Your task to perform on an android device: open app "The Home Depot" (install if not already installed), go to login, and select forgot password Image 0: 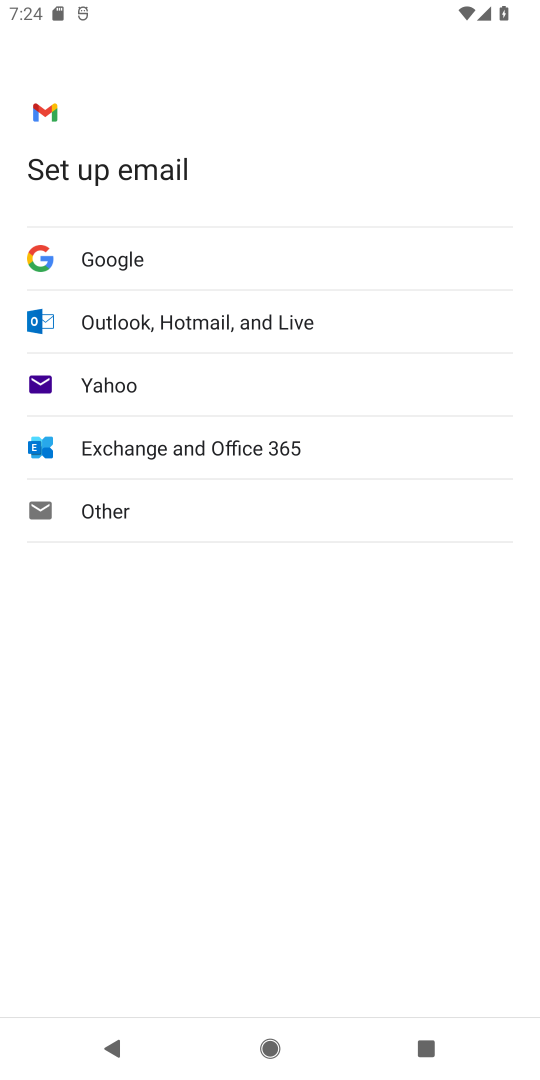
Step 0: press home button
Your task to perform on an android device: open app "The Home Depot" (install if not already installed), go to login, and select forgot password Image 1: 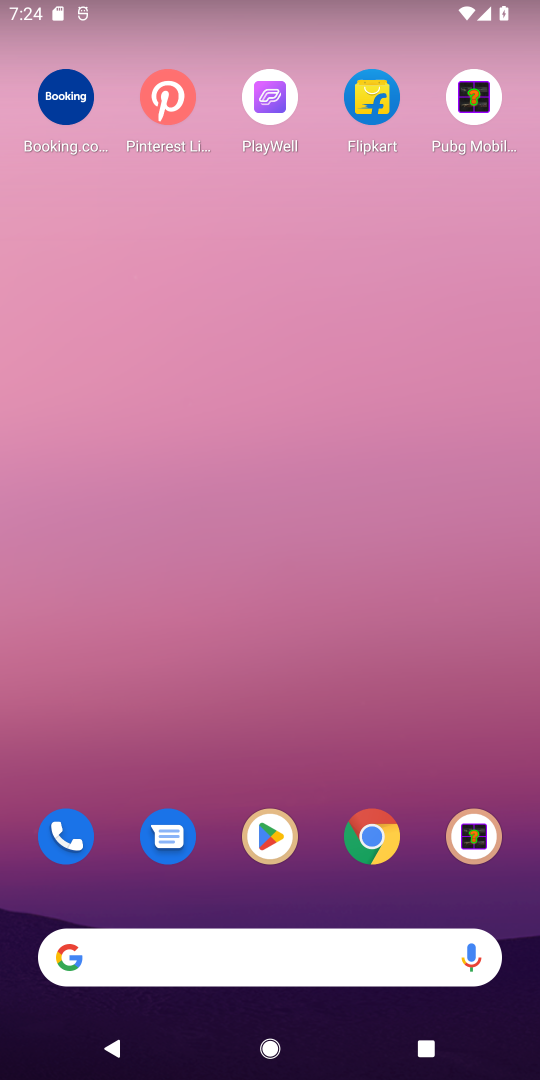
Step 1: press home button
Your task to perform on an android device: open app "The Home Depot" (install if not already installed), go to login, and select forgot password Image 2: 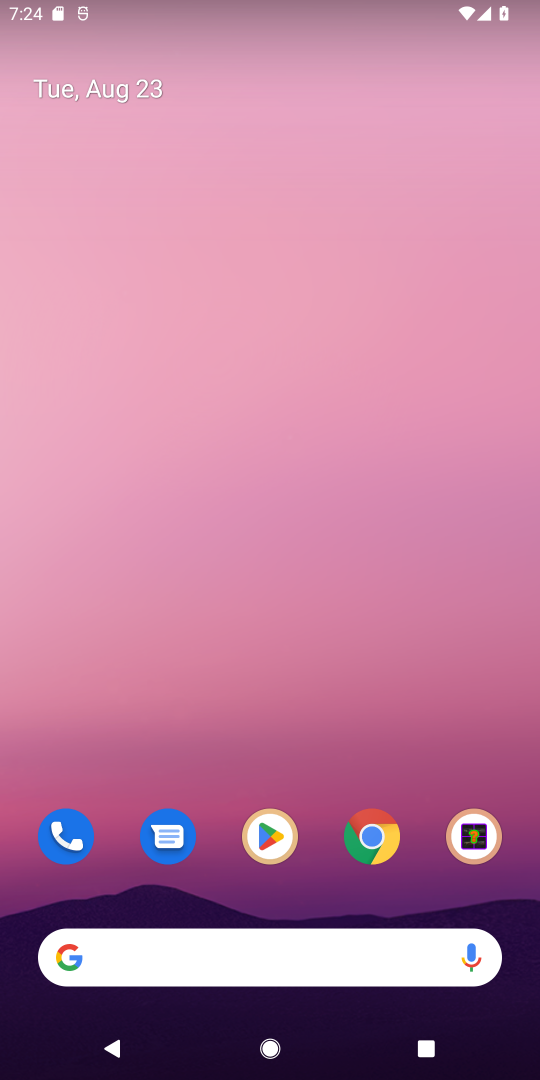
Step 2: click (273, 817)
Your task to perform on an android device: open app "The Home Depot" (install if not already installed), go to login, and select forgot password Image 3: 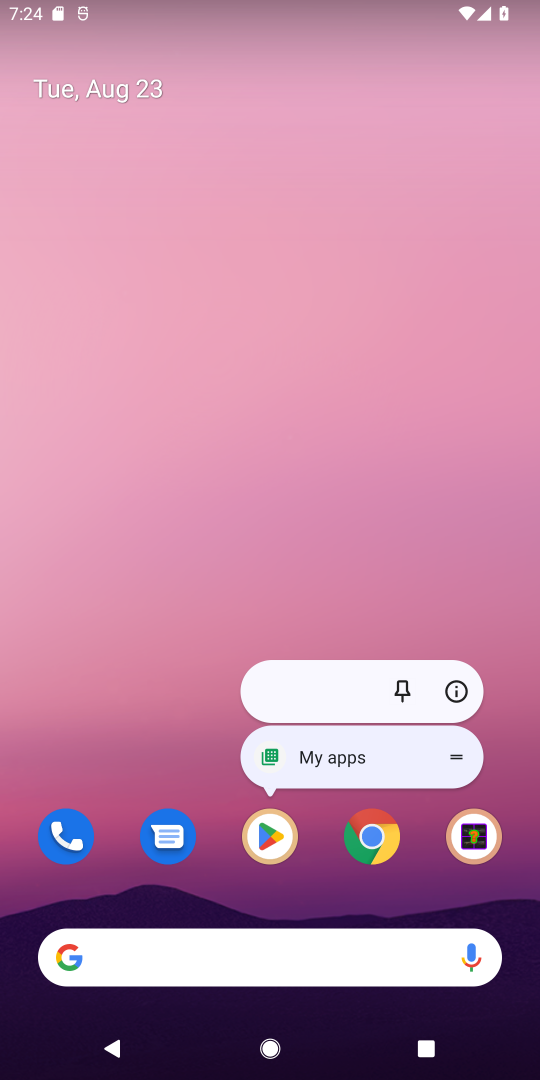
Step 3: click (269, 833)
Your task to perform on an android device: open app "The Home Depot" (install if not already installed), go to login, and select forgot password Image 4: 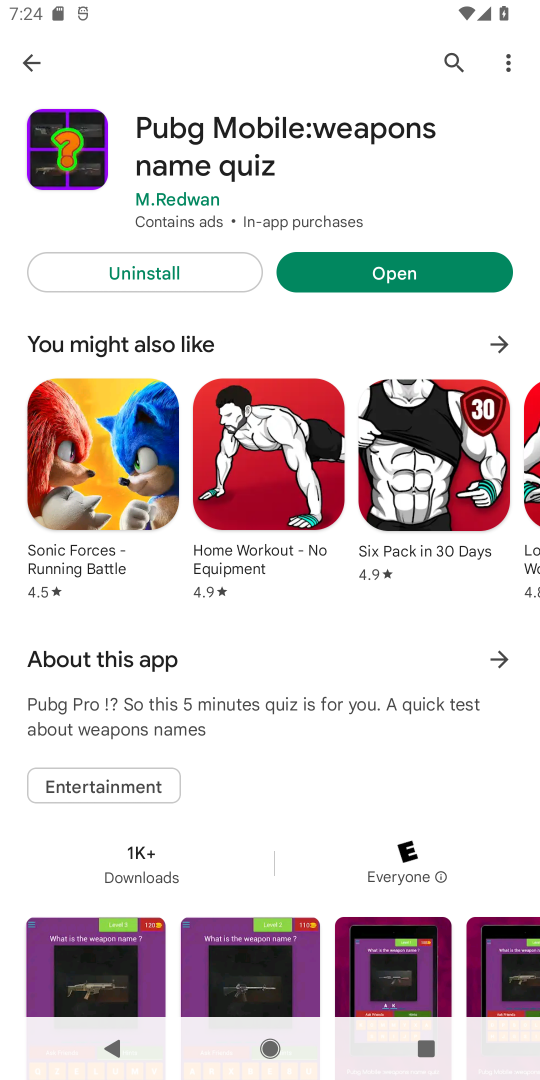
Step 4: click (452, 55)
Your task to perform on an android device: open app "The Home Depot" (install if not already installed), go to login, and select forgot password Image 5: 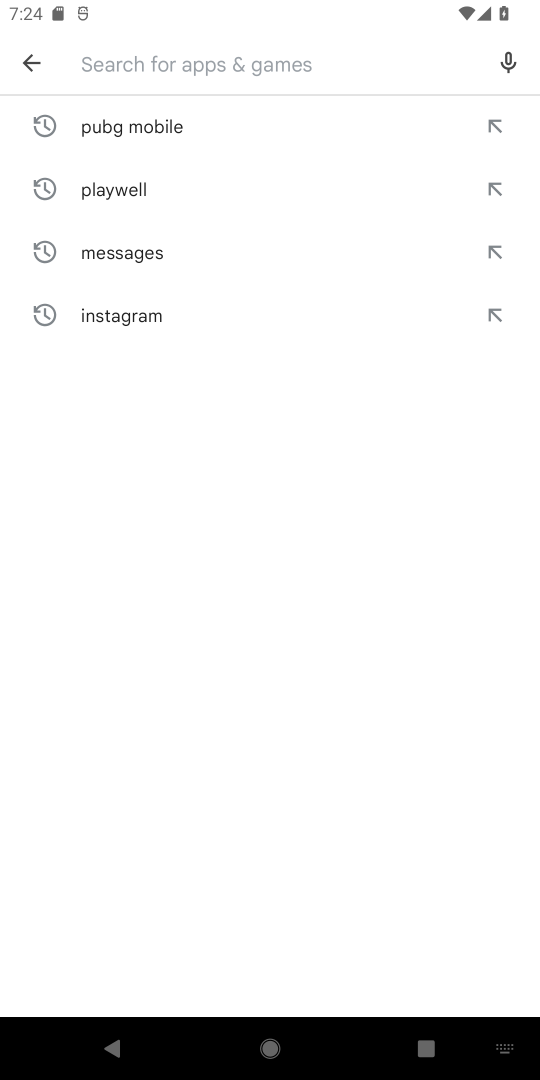
Step 5: type "The Home Depot"
Your task to perform on an android device: open app "The Home Depot" (install if not already installed), go to login, and select forgot password Image 6: 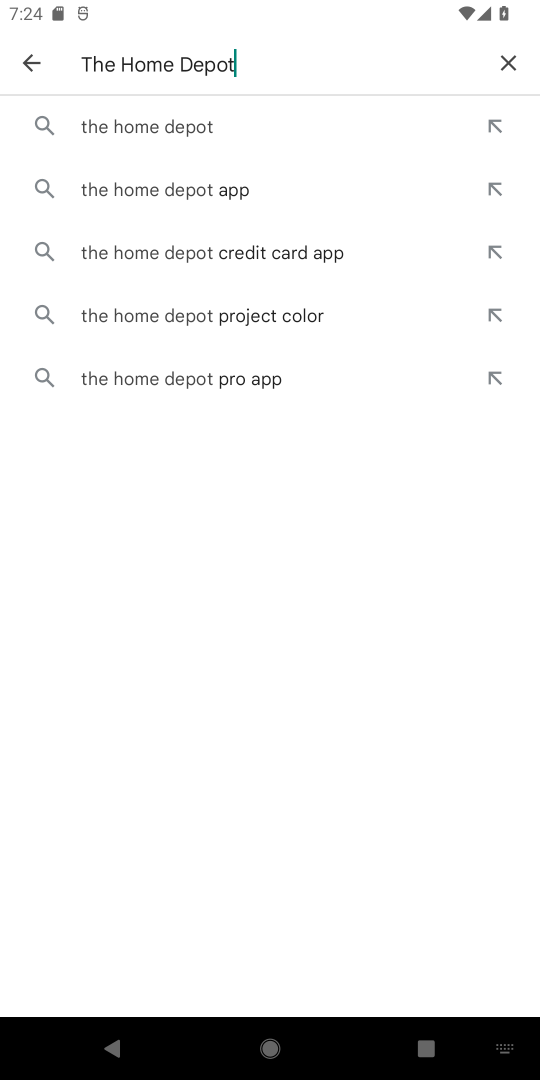
Step 6: click (195, 118)
Your task to perform on an android device: open app "The Home Depot" (install if not already installed), go to login, and select forgot password Image 7: 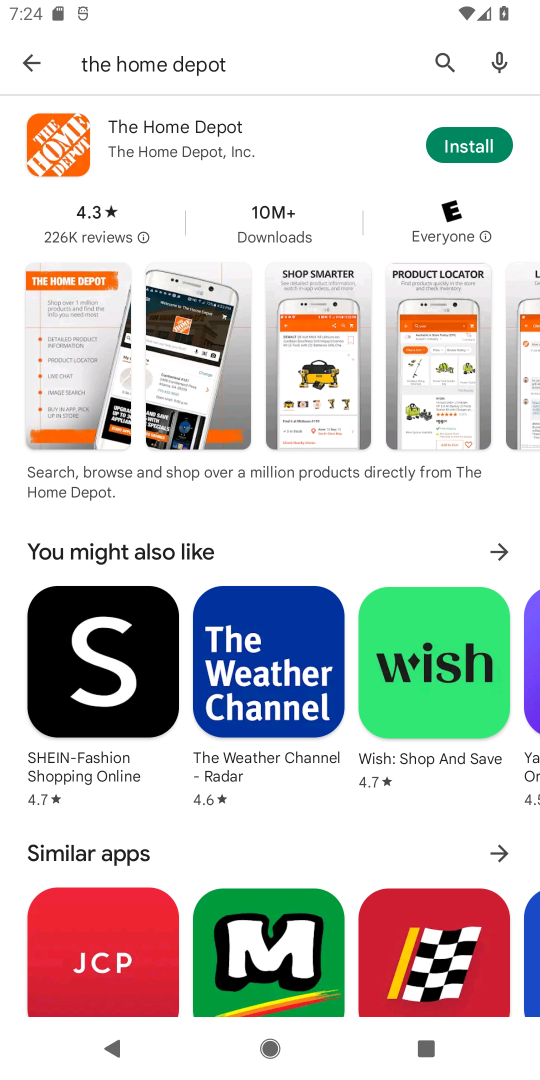
Step 7: click (477, 141)
Your task to perform on an android device: open app "The Home Depot" (install if not already installed), go to login, and select forgot password Image 8: 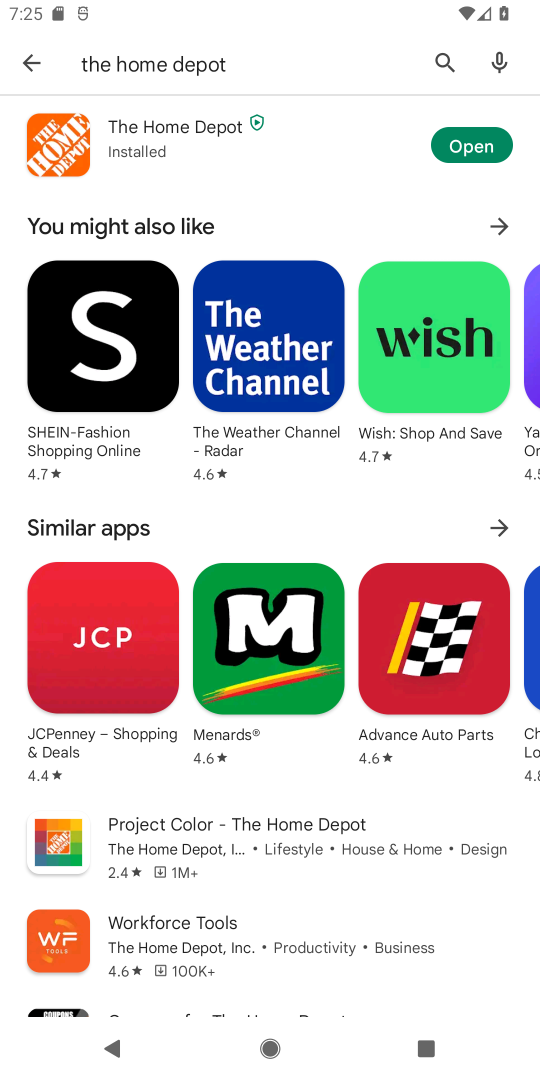
Step 8: click (491, 153)
Your task to perform on an android device: open app "The Home Depot" (install if not already installed), go to login, and select forgot password Image 9: 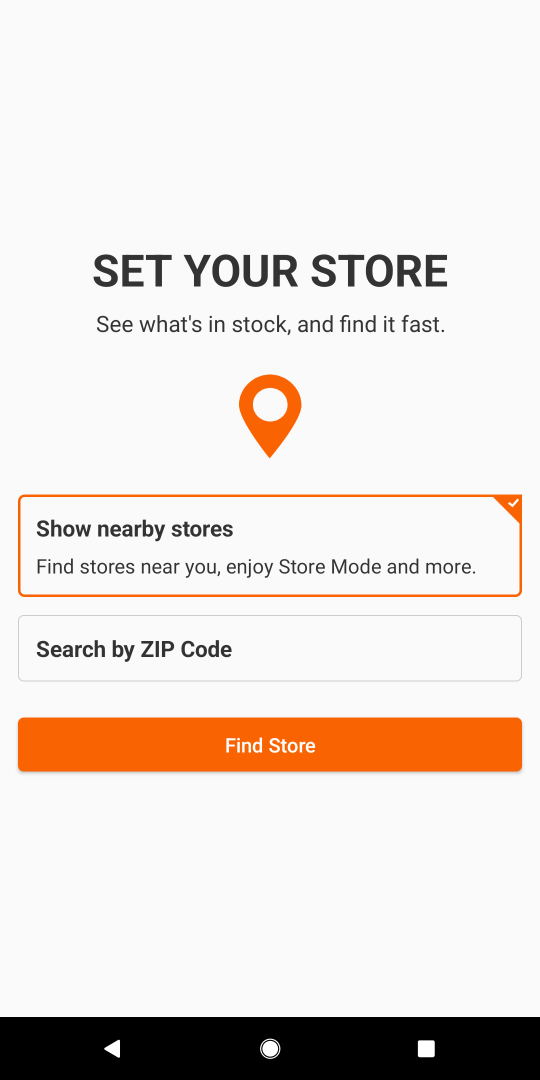
Step 9: task complete